Your task to perform on an android device: How big is a dinosaur? Image 0: 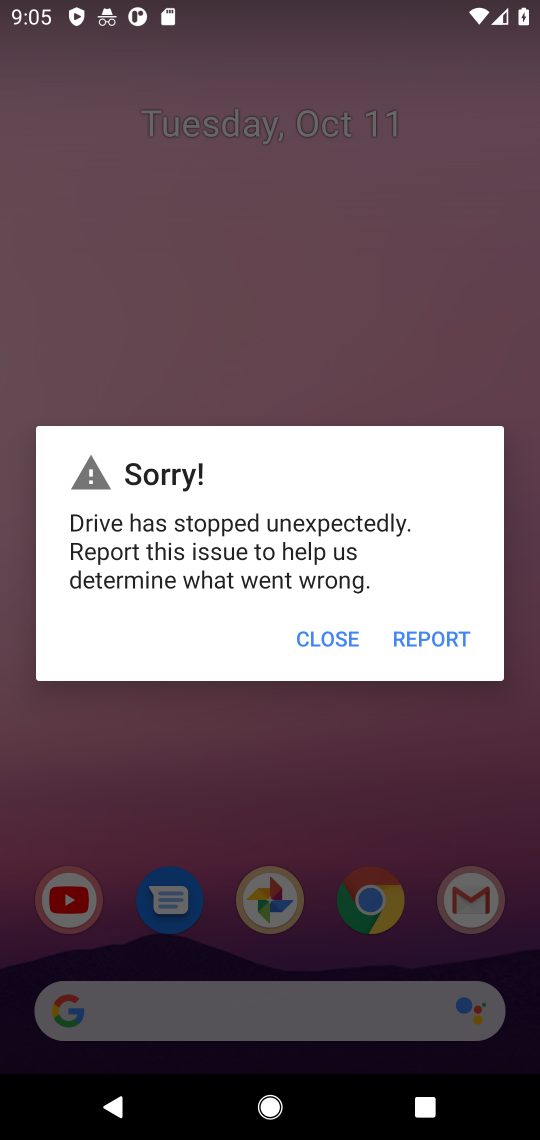
Step 0: press home button
Your task to perform on an android device: How big is a dinosaur? Image 1: 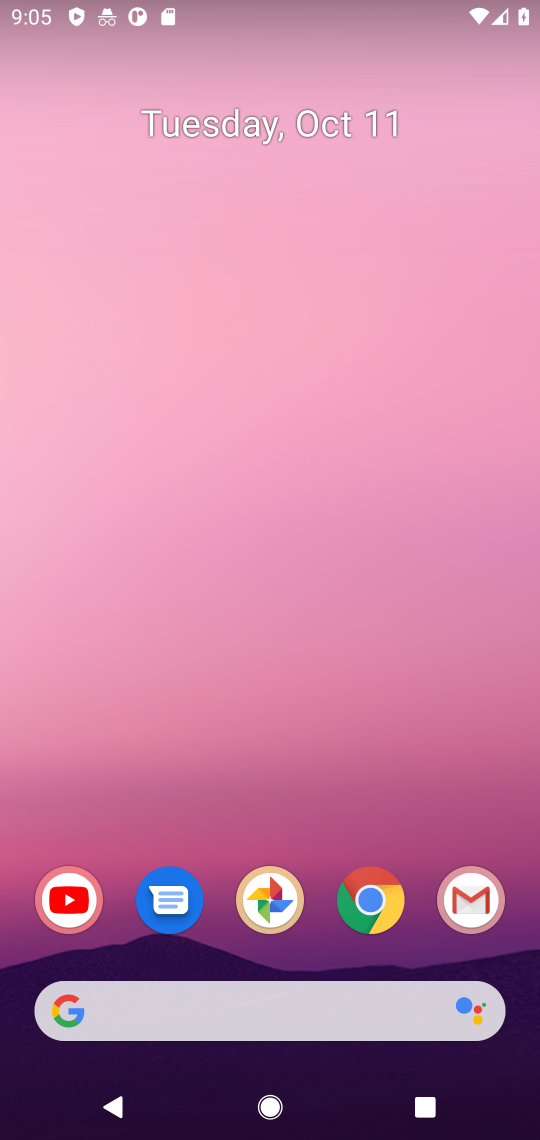
Step 1: click (381, 901)
Your task to perform on an android device: How big is a dinosaur? Image 2: 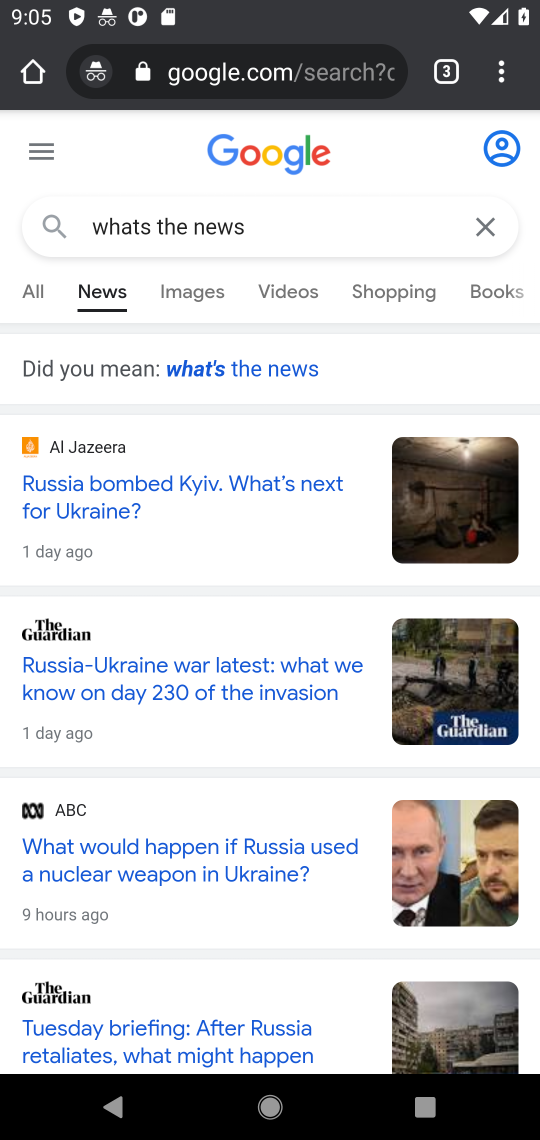
Step 2: click (223, 88)
Your task to perform on an android device: How big is a dinosaur? Image 3: 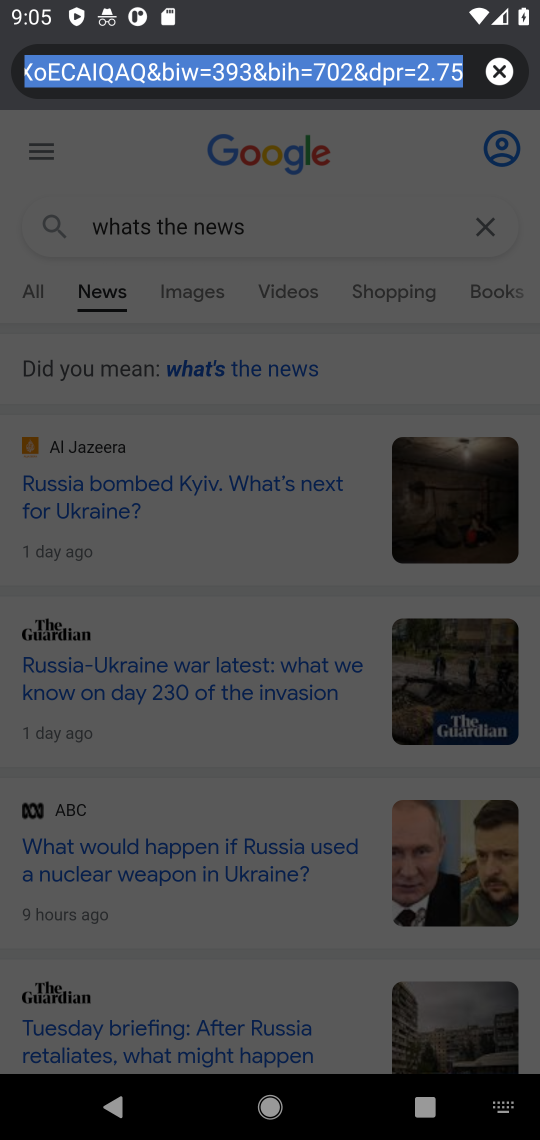
Step 3: type "How big is a dinosaur?"
Your task to perform on an android device: How big is a dinosaur? Image 4: 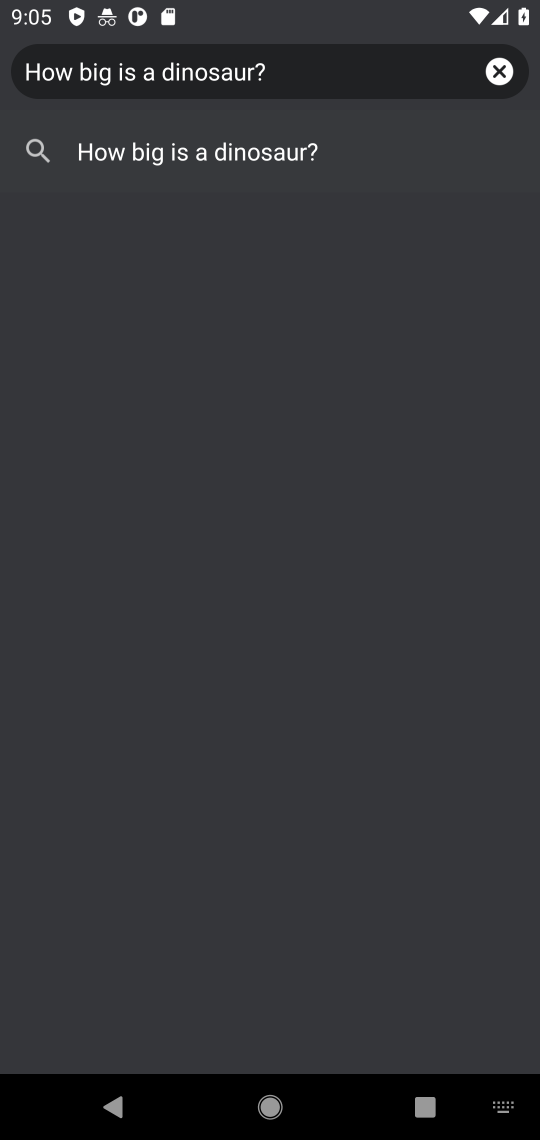
Step 4: click (302, 151)
Your task to perform on an android device: How big is a dinosaur? Image 5: 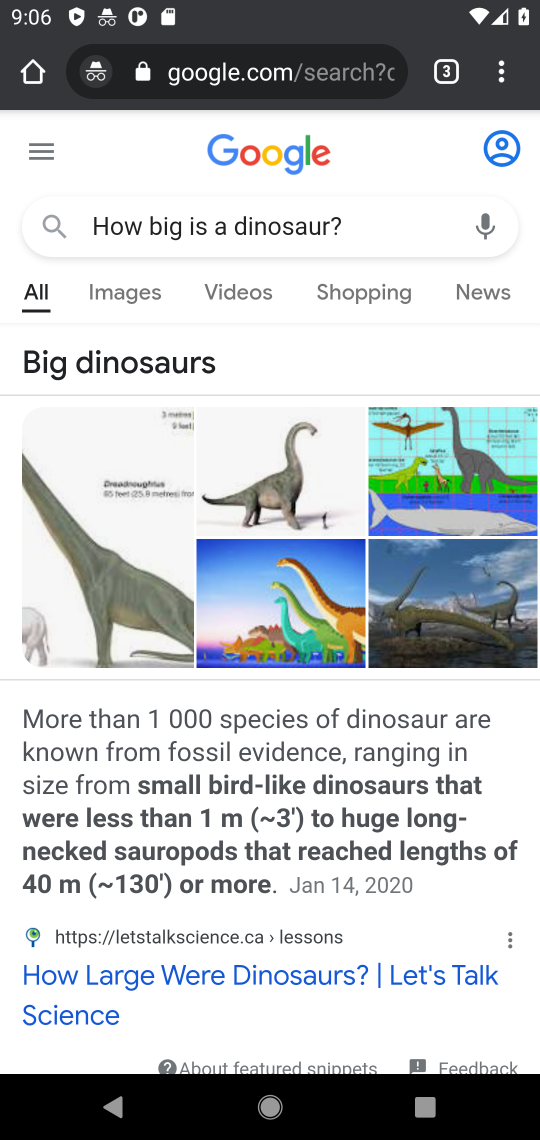
Step 5: drag from (315, 832) to (226, 522)
Your task to perform on an android device: How big is a dinosaur? Image 6: 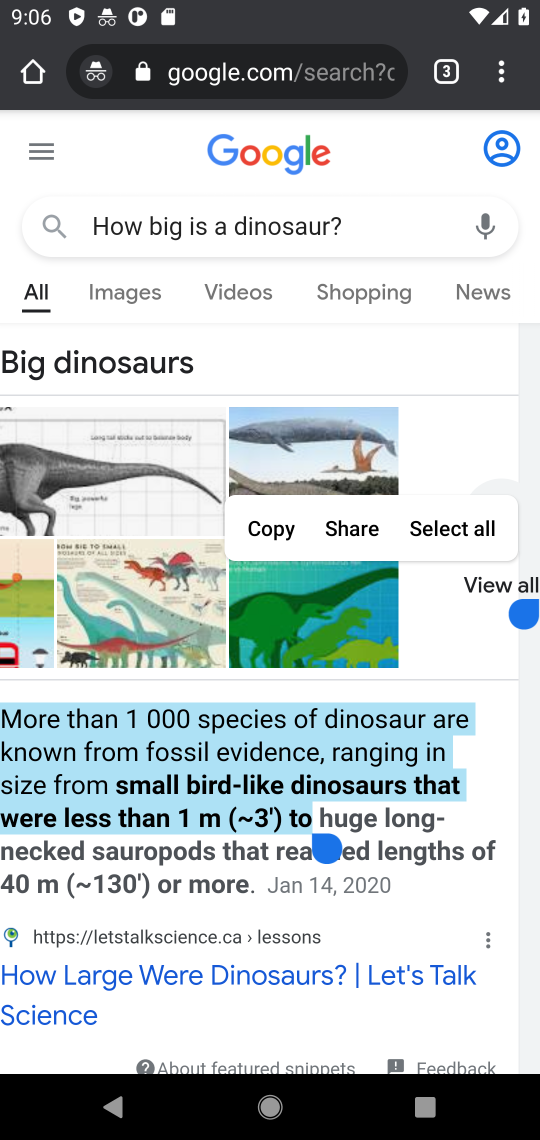
Step 6: click (342, 892)
Your task to perform on an android device: How big is a dinosaur? Image 7: 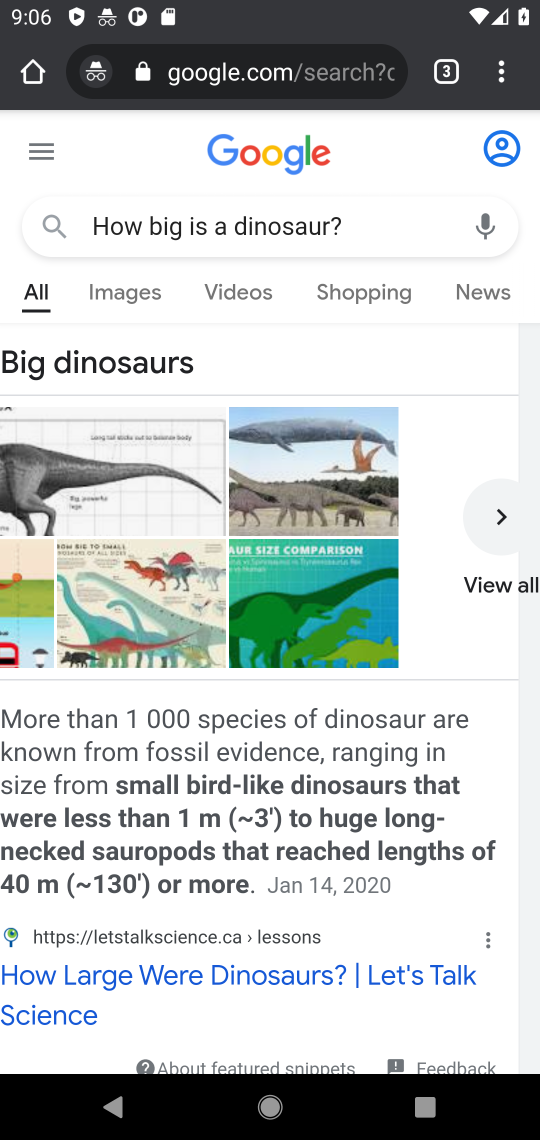
Step 7: task complete